Your task to perform on an android device: Search for the best rated headphones on AliExpress. Image 0: 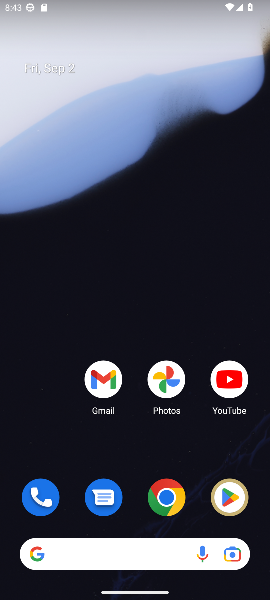
Step 0: drag from (128, 279) to (128, 58)
Your task to perform on an android device: Search for the best rated headphones on AliExpress. Image 1: 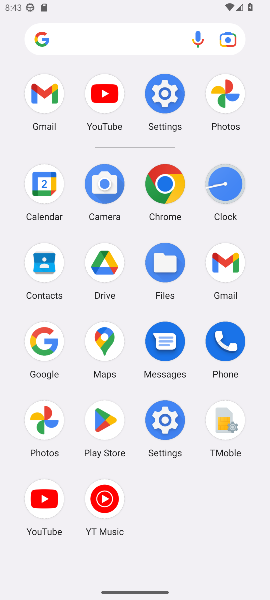
Step 1: click (35, 343)
Your task to perform on an android device: Search for the best rated headphones on AliExpress. Image 2: 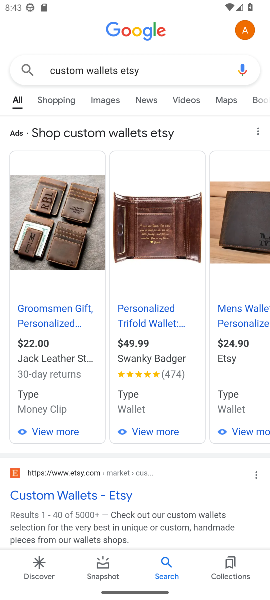
Step 2: click (77, 485)
Your task to perform on an android device: Search for the best rated headphones on AliExpress. Image 3: 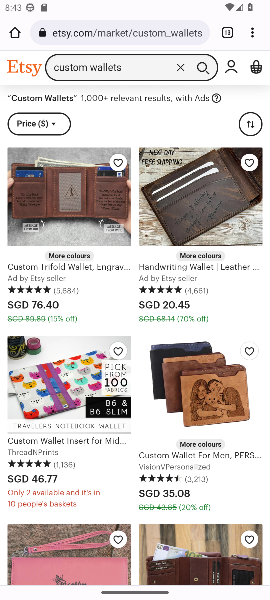
Step 3: task complete